Your task to perform on an android device: clear all cookies in the chrome app Image 0: 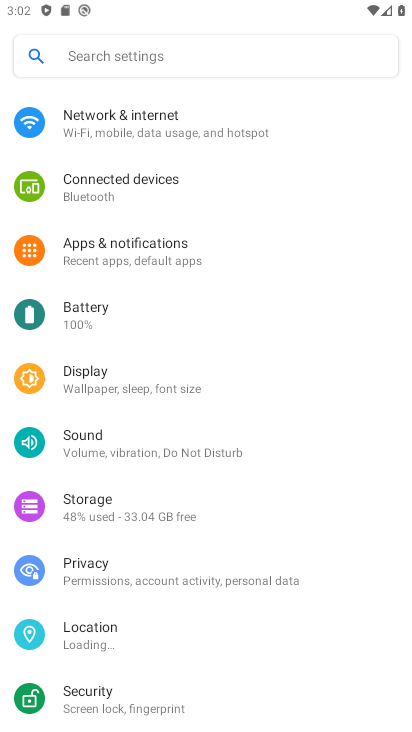
Step 0: press back button
Your task to perform on an android device: clear all cookies in the chrome app Image 1: 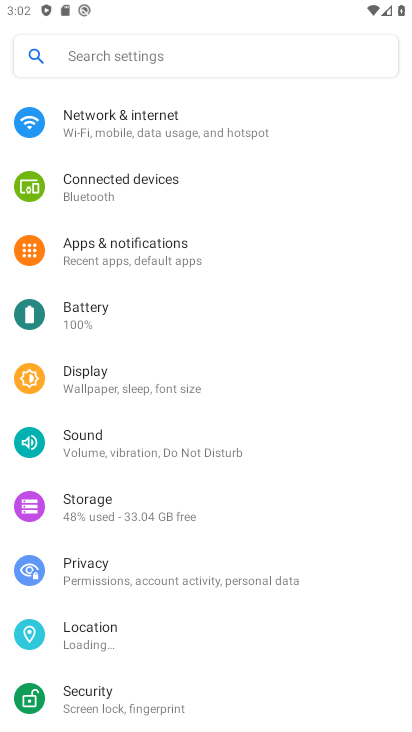
Step 1: press back button
Your task to perform on an android device: clear all cookies in the chrome app Image 2: 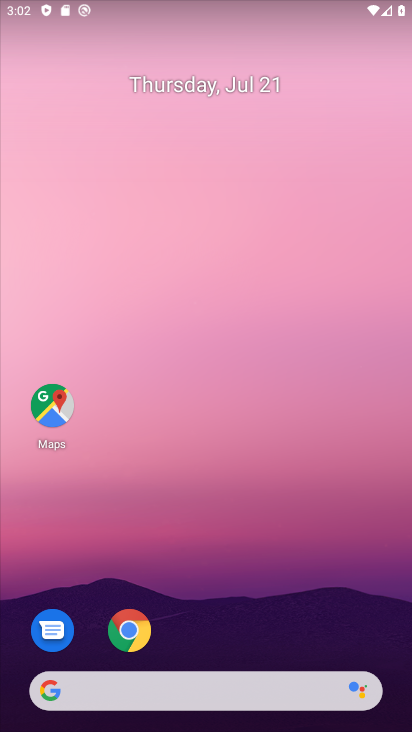
Step 2: drag from (226, 666) to (234, 260)
Your task to perform on an android device: clear all cookies in the chrome app Image 3: 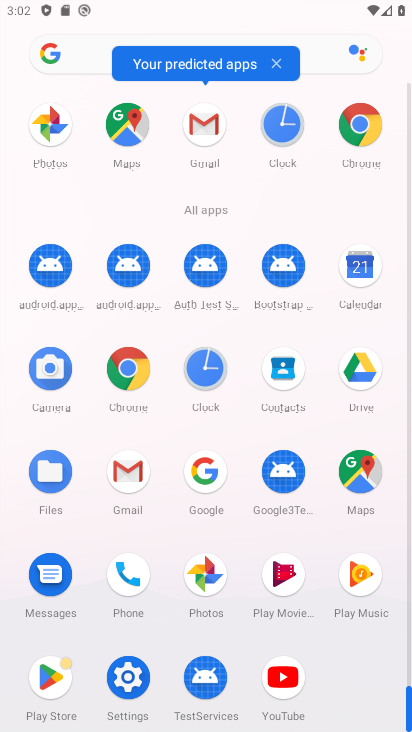
Step 3: click (362, 137)
Your task to perform on an android device: clear all cookies in the chrome app Image 4: 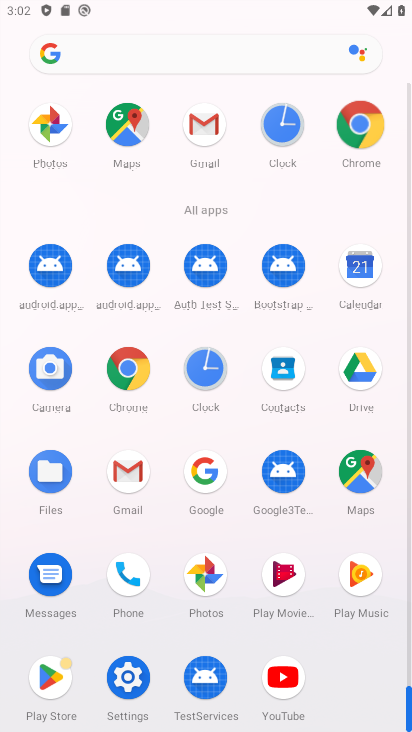
Step 4: click (360, 131)
Your task to perform on an android device: clear all cookies in the chrome app Image 5: 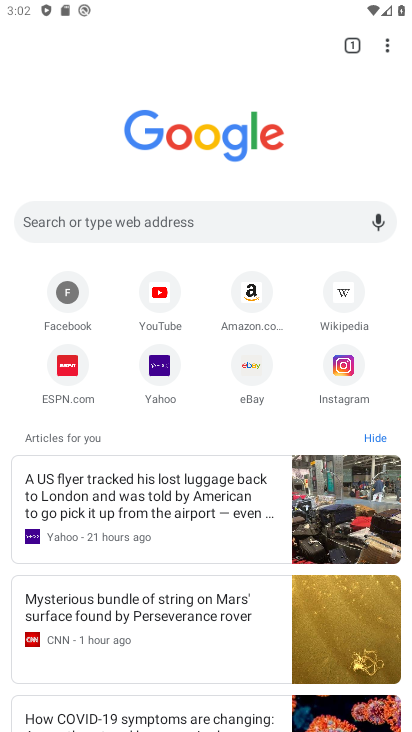
Step 5: drag from (383, 49) to (216, 384)
Your task to perform on an android device: clear all cookies in the chrome app Image 6: 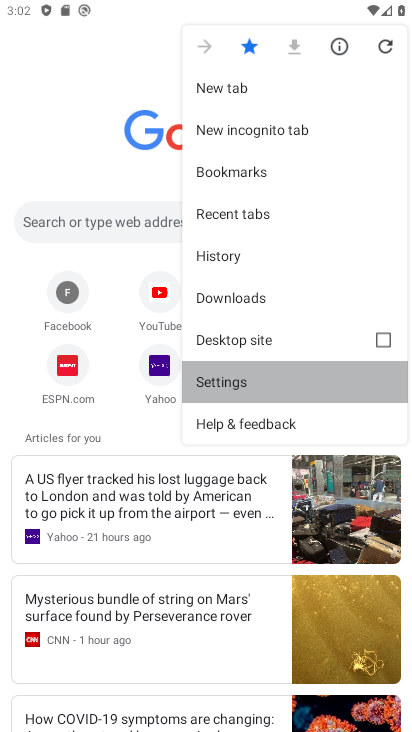
Step 6: click (216, 384)
Your task to perform on an android device: clear all cookies in the chrome app Image 7: 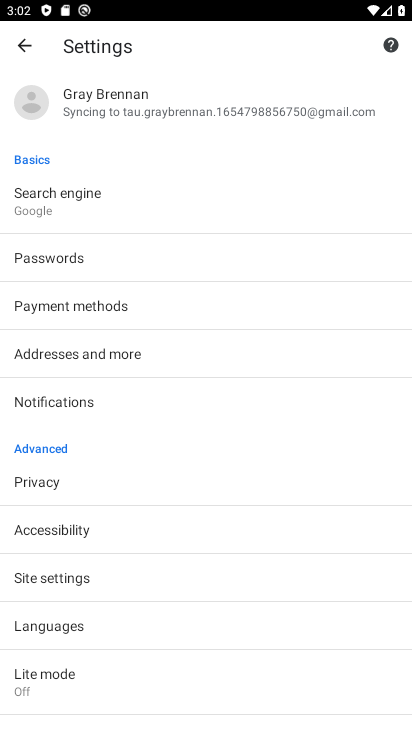
Step 7: click (44, 567)
Your task to perform on an android device: clear all cookies in the chrome app Image 8: 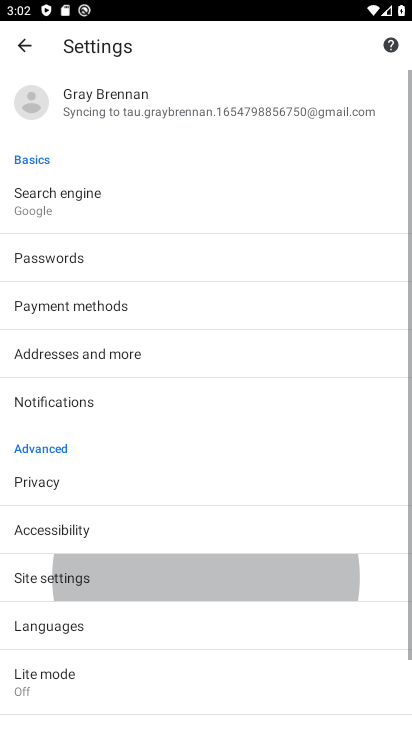
Step 8: click (44, 568)
Your task to perform on an android device: clear all cookies in the chrome app Image 9: 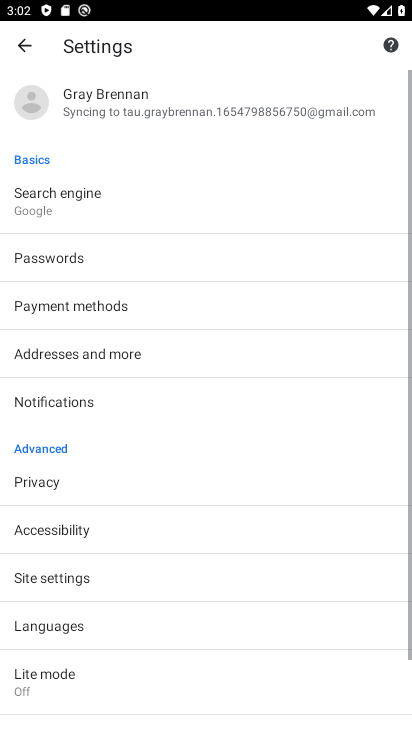
Step 9: click (44, 568)
Your task to perform on an android device: clear all cookies in the chrome app Image 10: 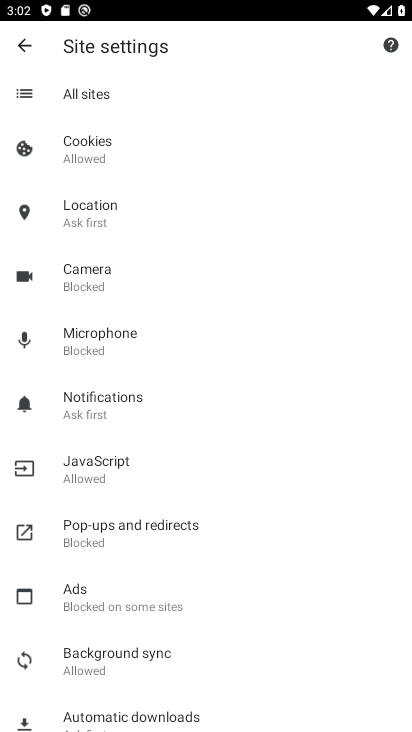
Step 10: click (86, 143)
Your task to perform on an android device: clear all cookies in the chrome app Image 11: 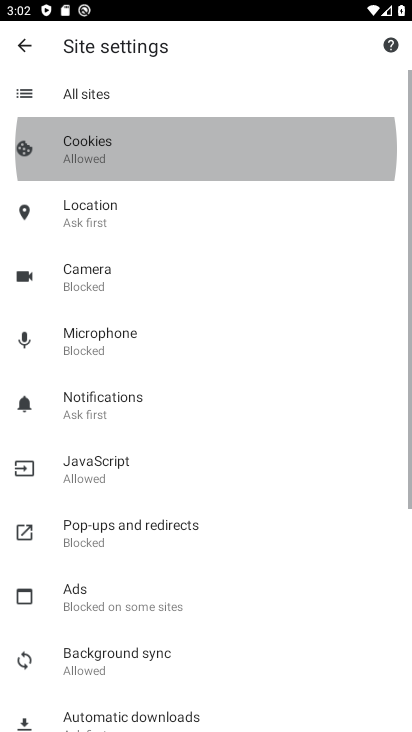
Step 11: click (86, 143)
Your task to perform on an android device: clear all cookies in the chrome app Image 12: 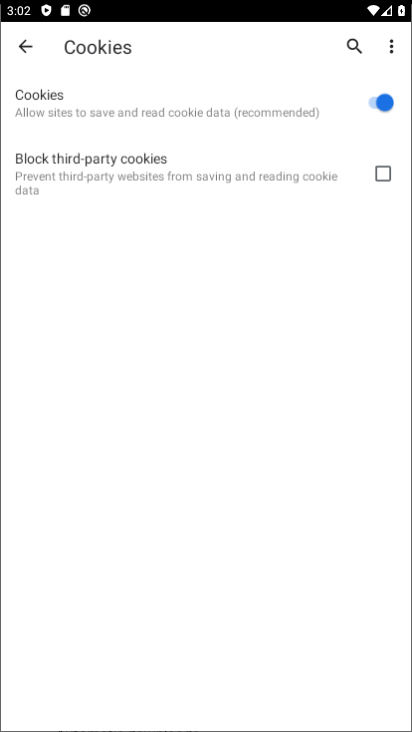
Step 12: click (86, 146)
Your task to perform on an android device: clear all cookies in the chrome app Image 13: 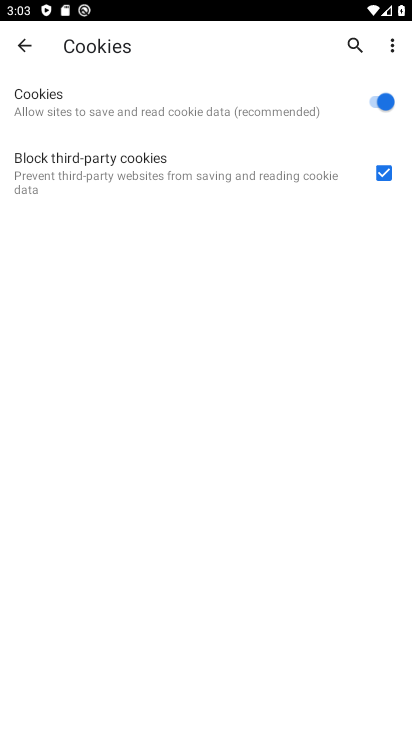
Step 13: click (378, 99)
Your task to perform on an android device: clear all cookies in the chrome app Image 14: 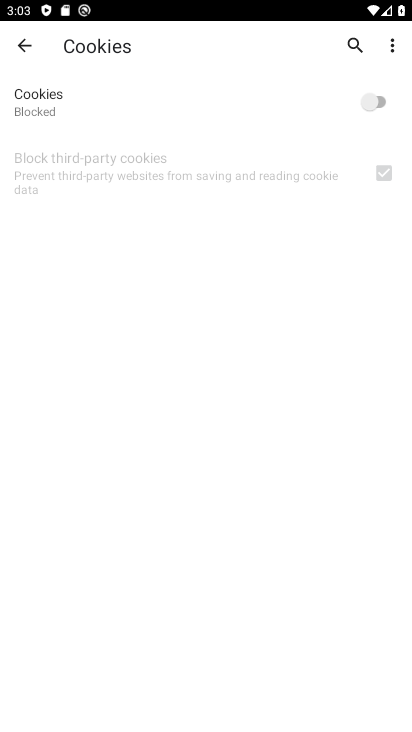
Step 14: task complete